Your task to perform on an android device: open app "YouTube Kids" Image 0: 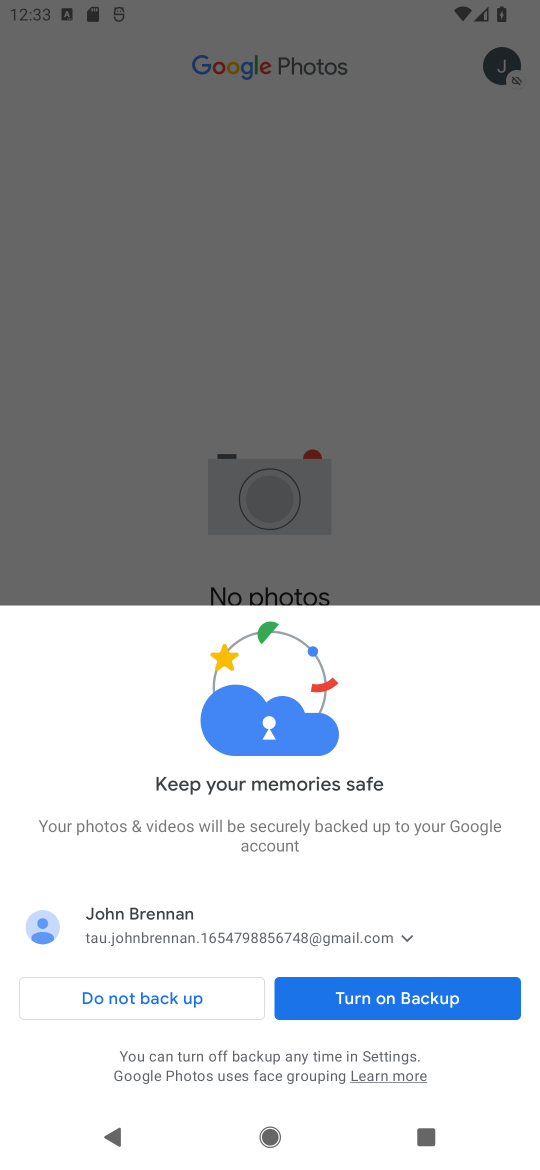
Step 0: press home button
Your task to perform on an android device: open app "YouTube Kids" Image 1: 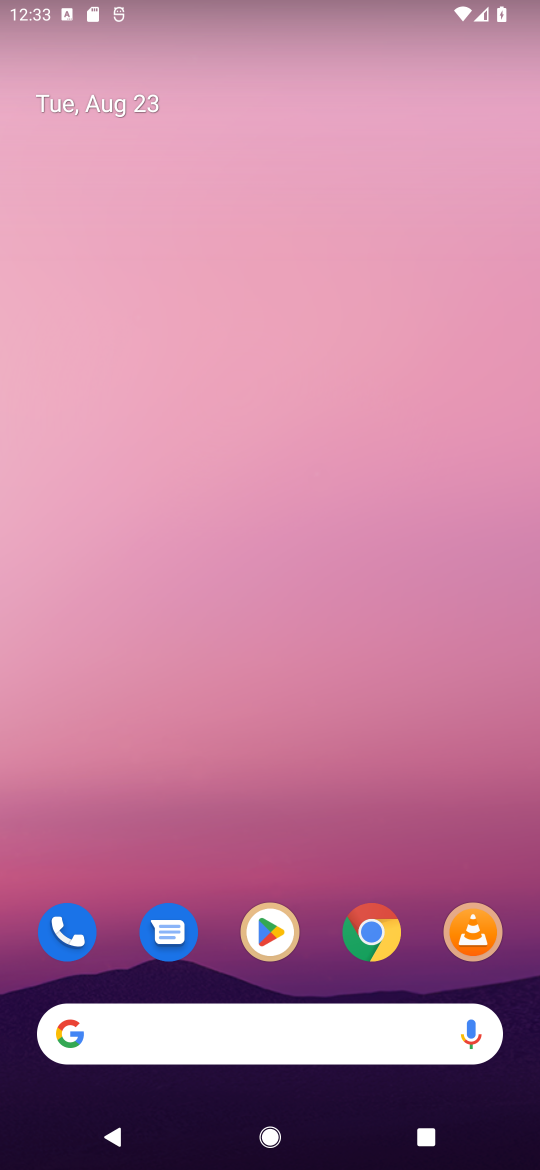
Step 1: click (270, 933)
Your task to perform on an android device: open app "YouTube Kids" Image 2: 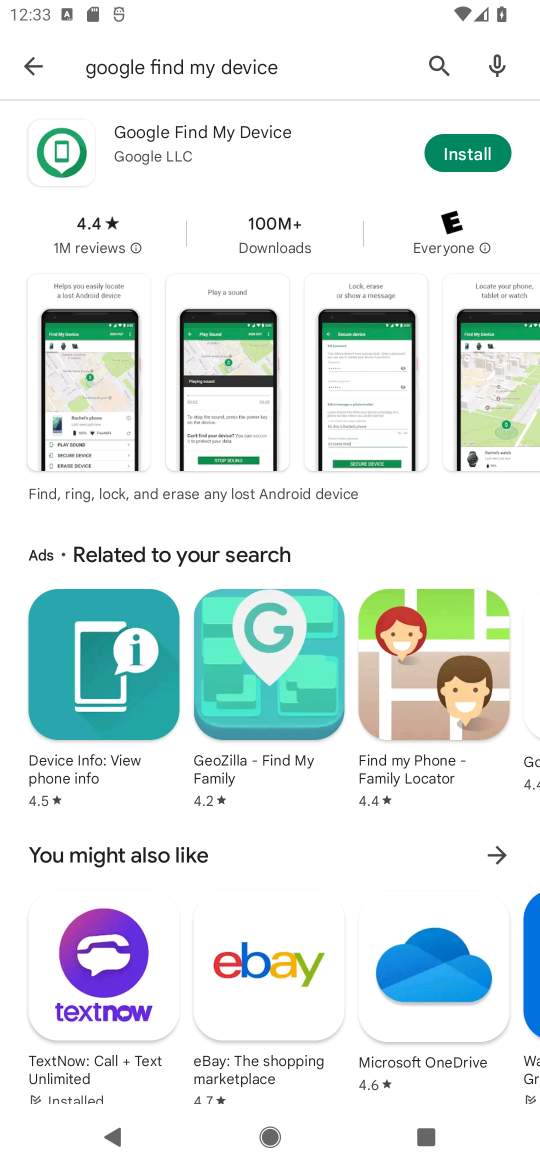
Step 2: click (433, 52)
Your task to perform on an android device: open app "YouTube Kids" Image 3: 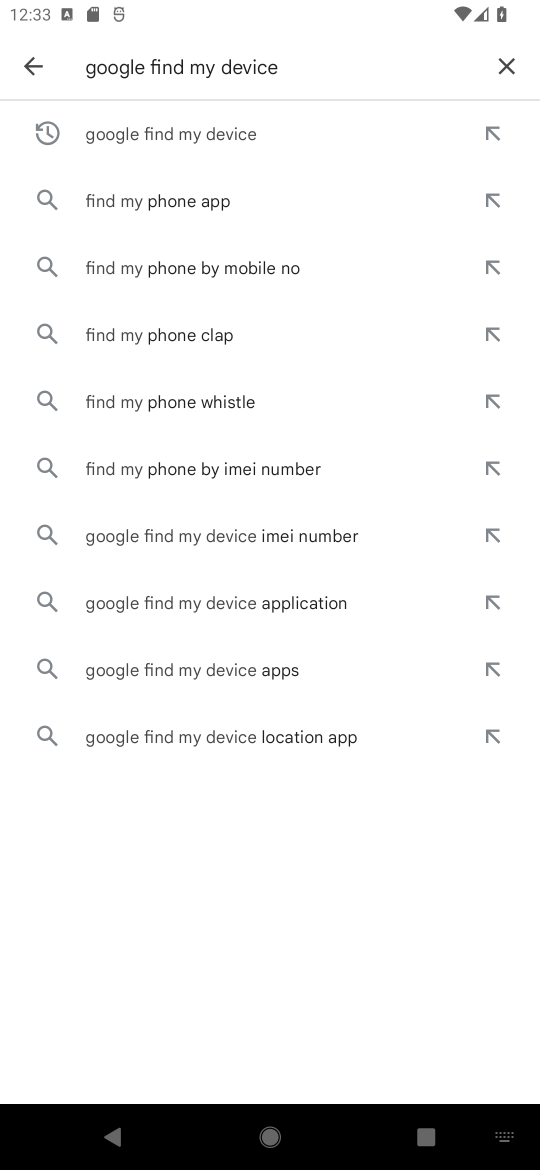
Step 3: click (496, 58)
Your task to perform on an android device: open app "YouTube Kids" Image 4: 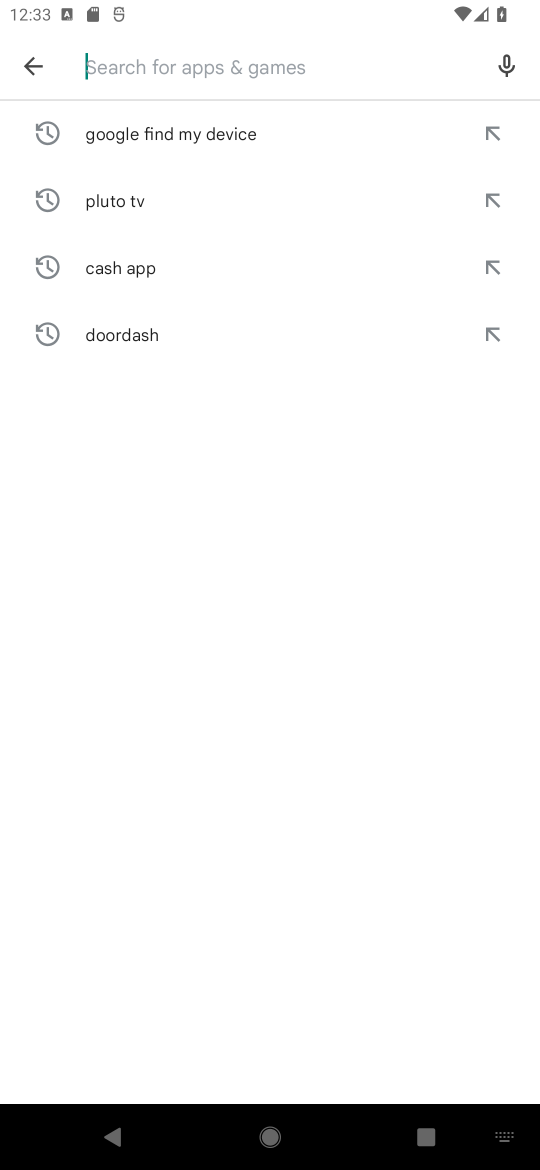
Step 4: click (189, 80)
Your task to perform on an android device: open app "YouTube Kids" Image 5: 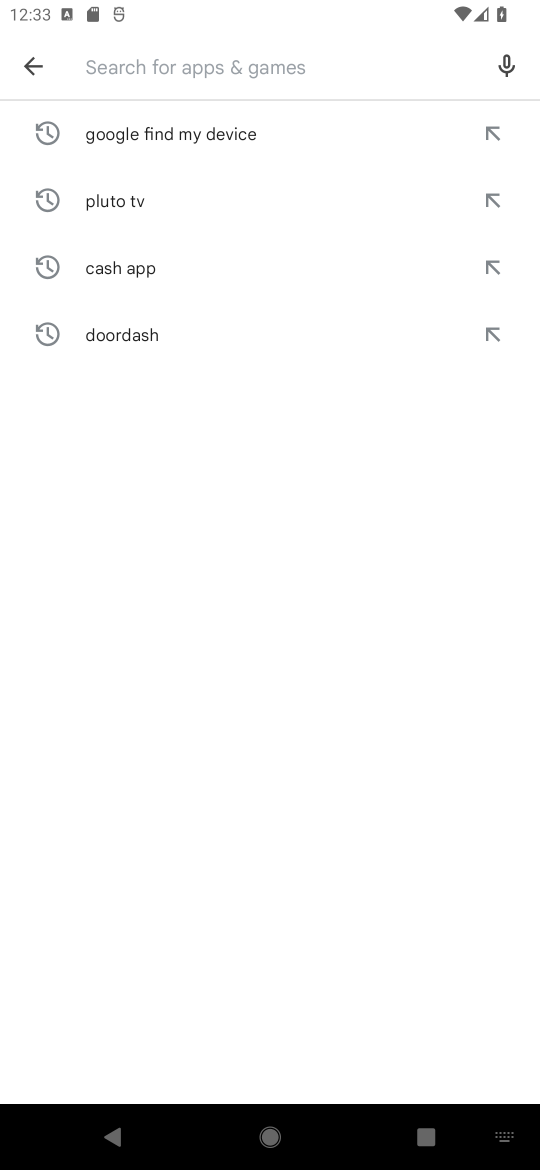
Step 5: type "YouTube Kids"
Your task to perform on an android device: open app "YouTube Kids" Image 6: 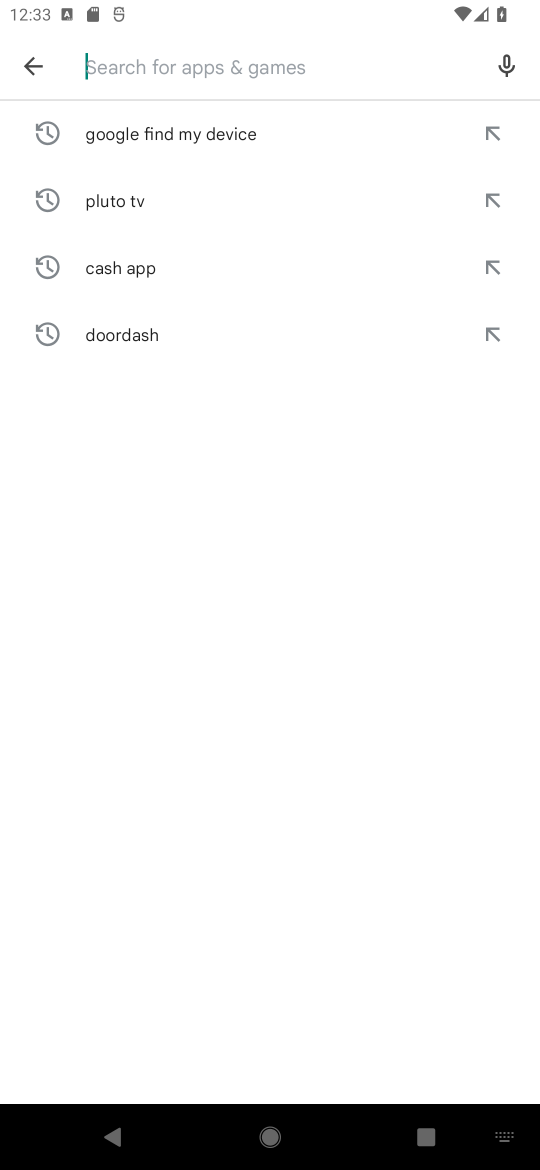
Step 6: click (259, 796)
Your task to perform on an android device: open app "YouTube Kids" Image 7: 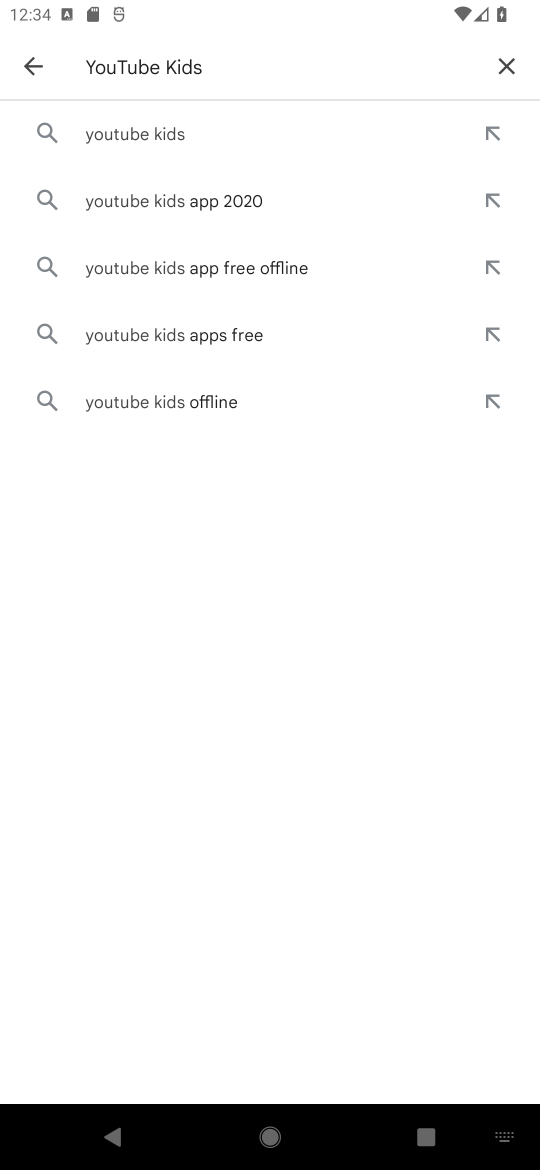
Step 7: click (95, 121)
Your task to perform on an android device: open app "YouTube Kids" Image 8: 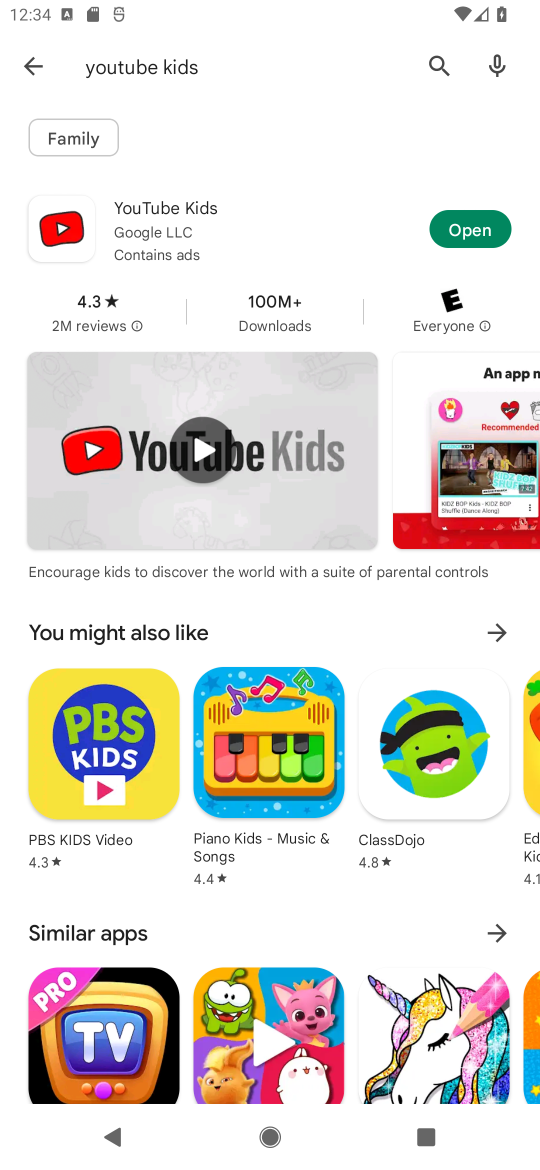
Step 8: click (464, 226)
Your task to perform on an android device: open app "YouTube Kids" Image 9: 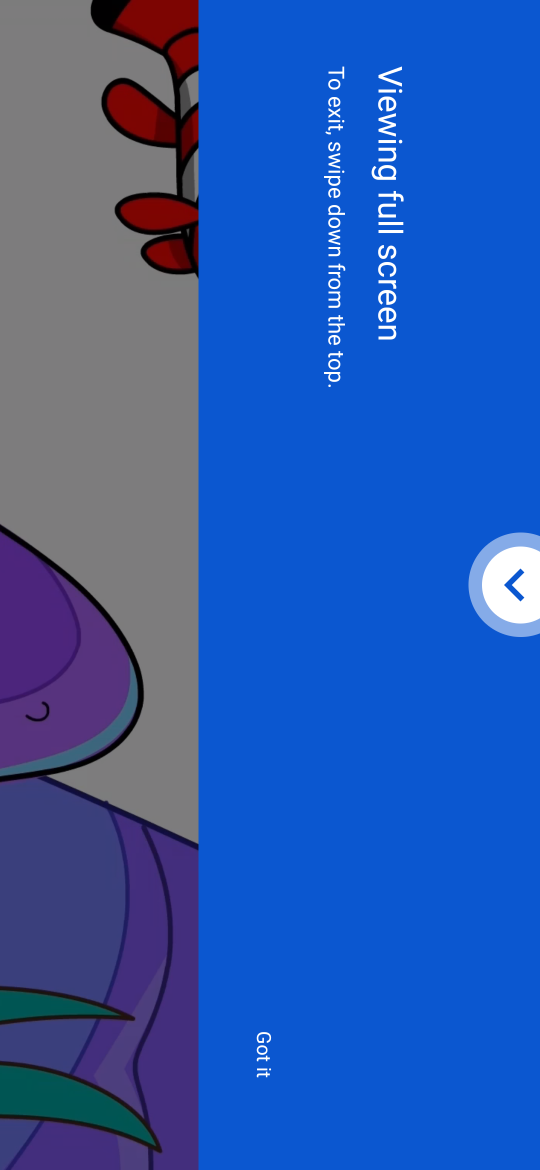
Step 9: task complete